Your task to perform on an android device: install app "Mercado Libre" Image 0: 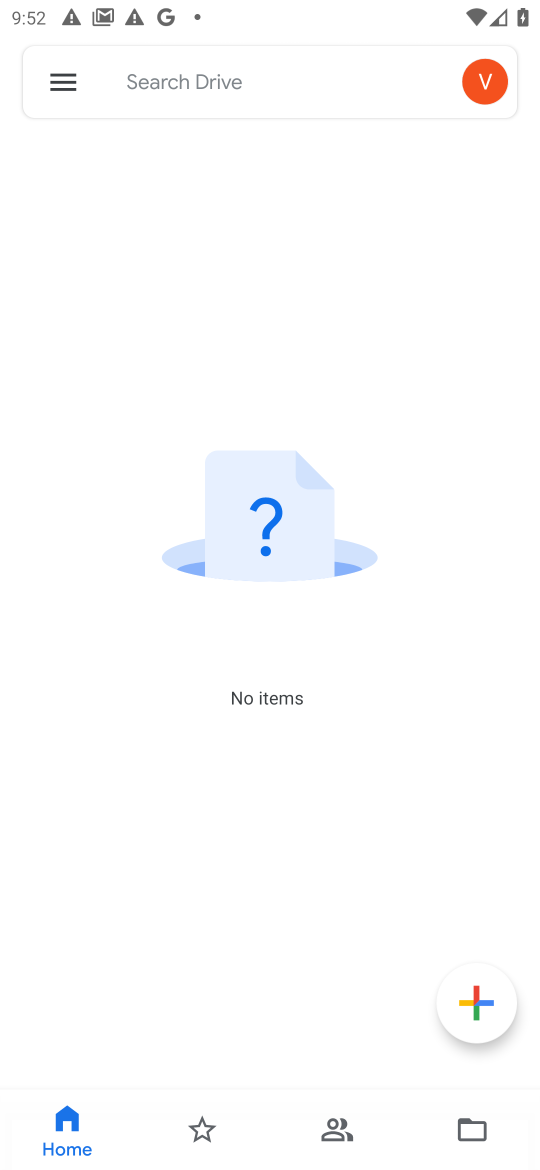
Step 0: press home button
Your task to perform on an android device: install app "Mercado Libre" Image 1: 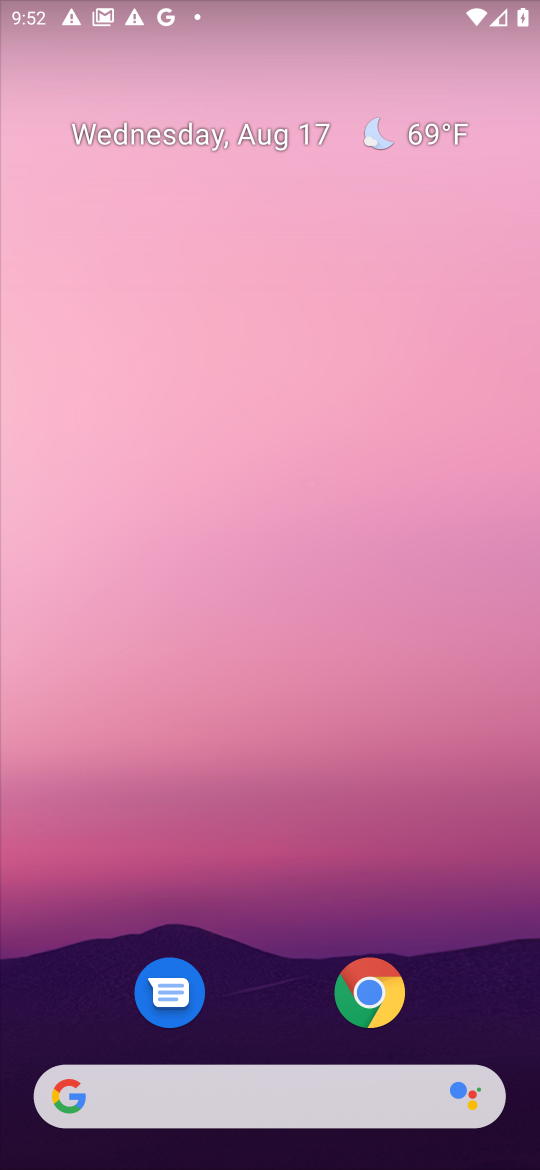
Step 1: drag from (466, 988) to (262, 25)
Your task to perform on an android device: install app "Mercado Libre" Image 2: 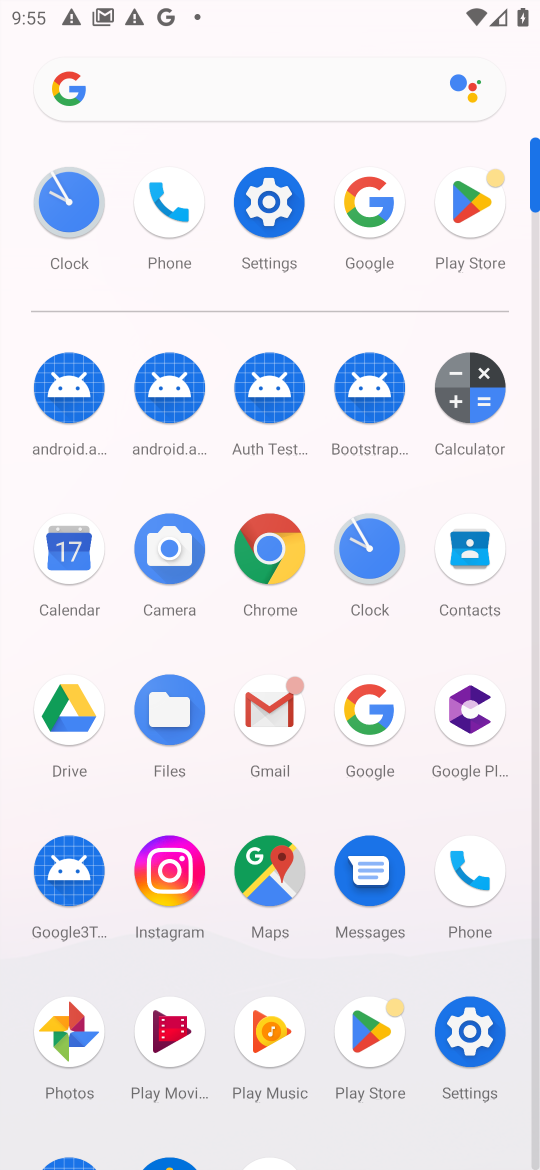
Step 2: click (362, 1024)
Your task to perform on an android device: install app "Mercado Libre" Image 3: 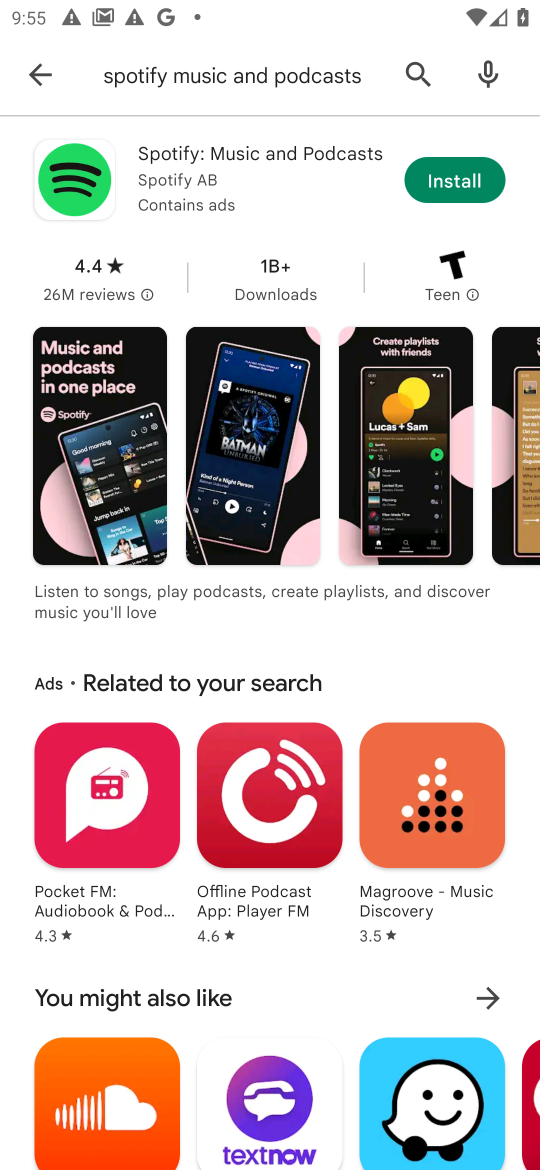
Step 3: press back button
Your task to perform on an android device: install app "Mercado Libre" Image 4: 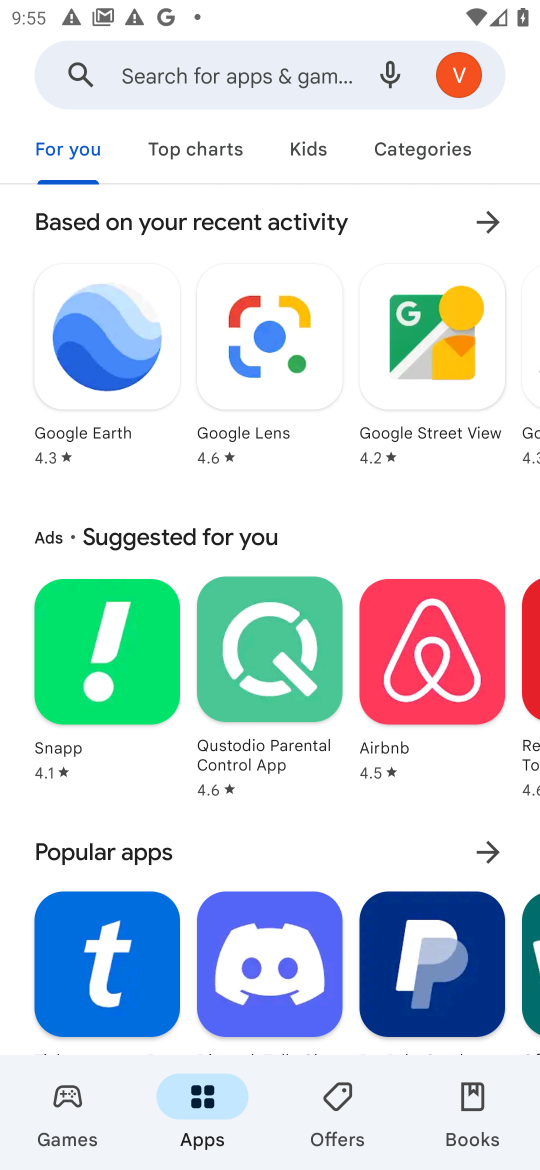
Step 4: click (155, 81)
Your task to perform on an android device: install app "Mercado Libre" Image 5: 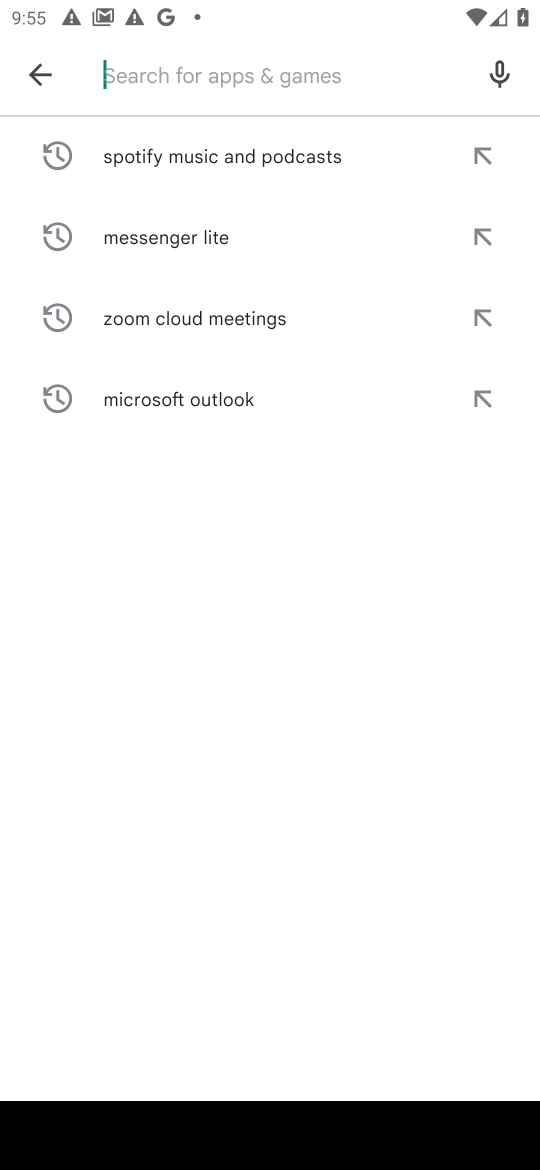
Step 5: type "Mercado Libre"
Your task to perform on an android device: install app "Mercado Libre" Image 6: 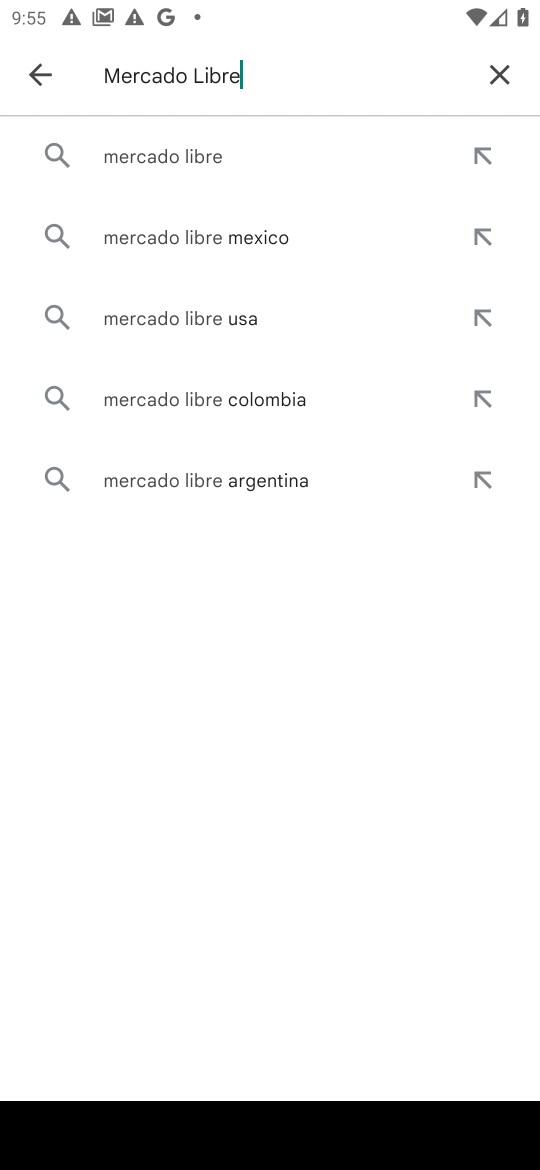
Step 6: click (162, 152)
Your task to perform on an android device: install app "Mercado Libre" Image 7: 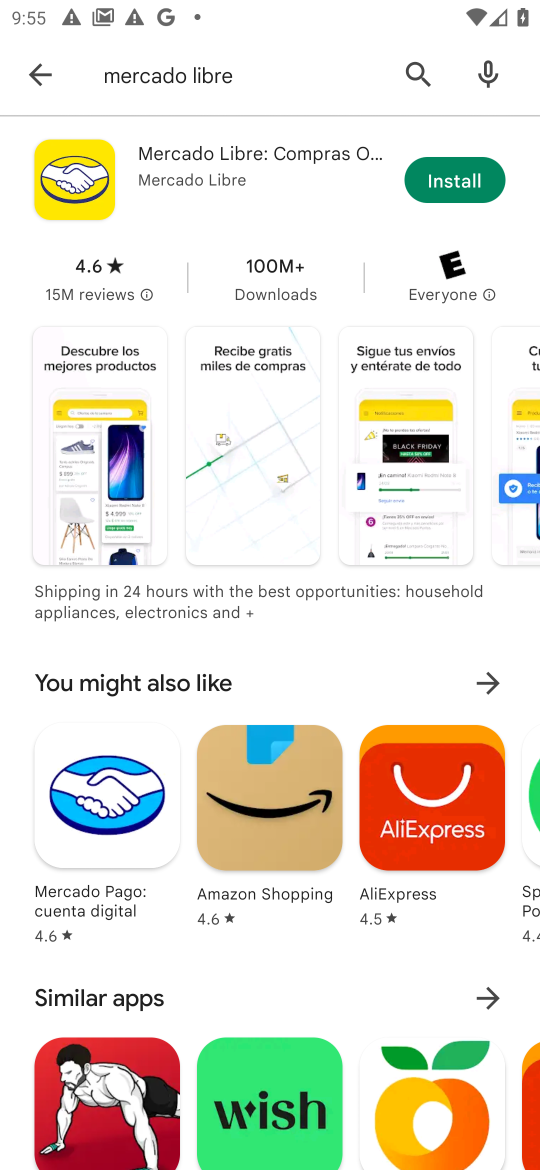
Step 7: click (458, 167)
Your task to perform on an android device: install app "Mercado Libre" Image 8: 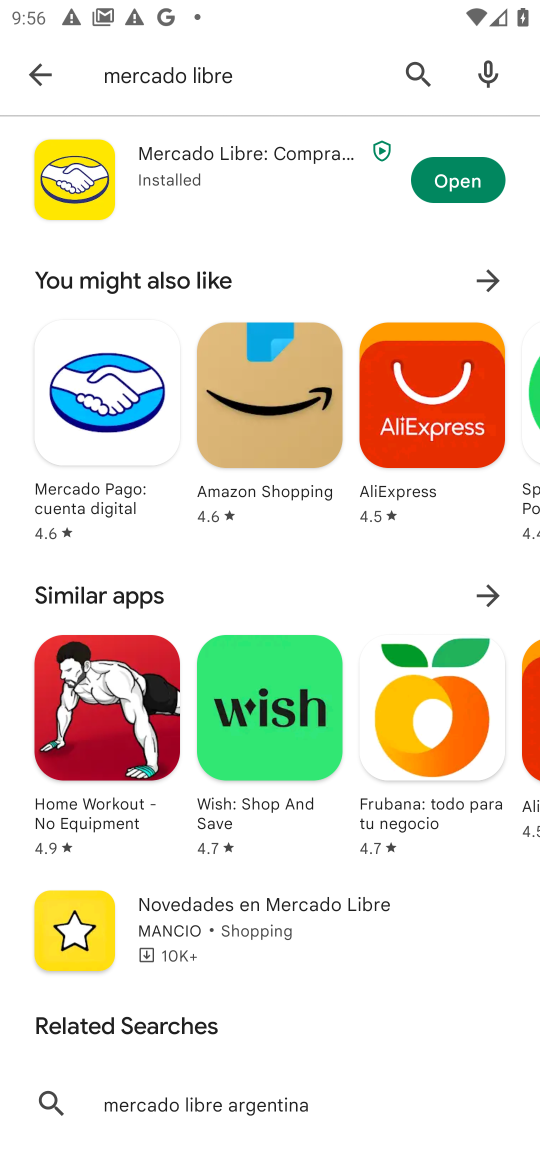
Step 8: task complete